Your task to perform on an android device: check battery use Image 0: 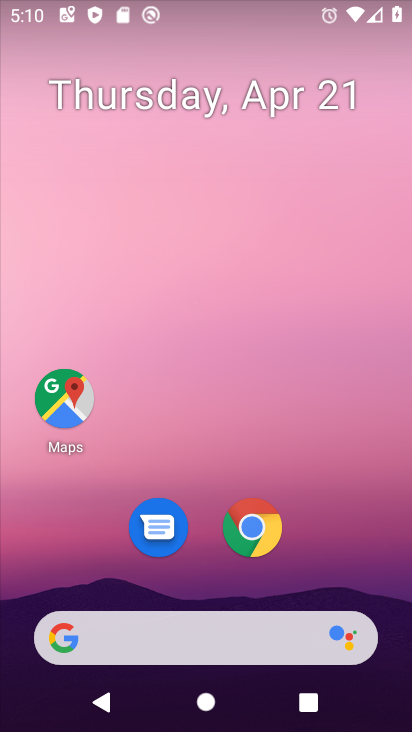
Step 0: click (380, 582)
Your task to perform on an android device: check battery use Image 1: 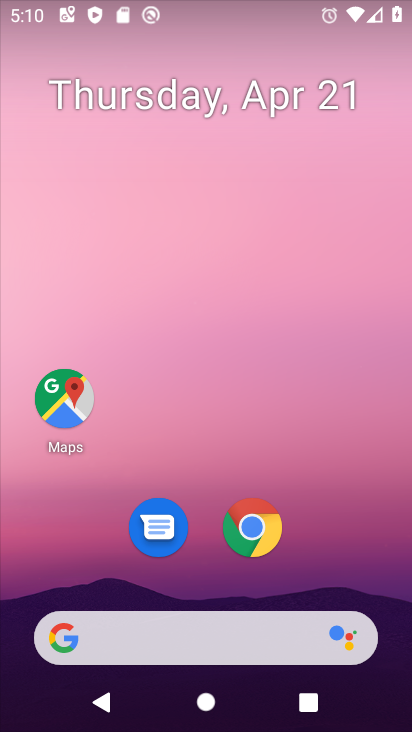
Step 1: click (342, 167)
Your task to perform on an android device: check battery use Image 2: 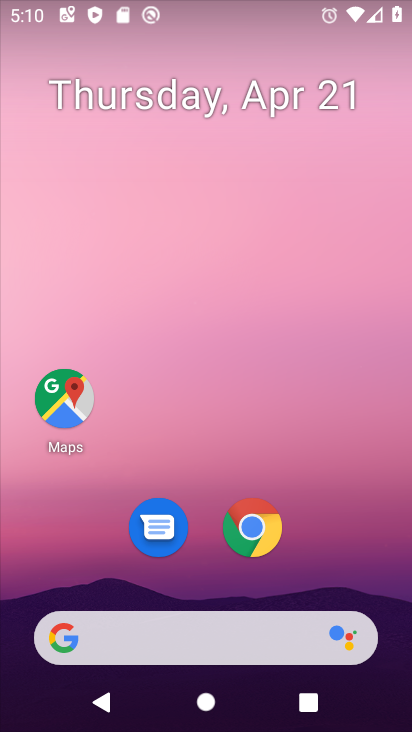
Step 2: drag from (382, 556) to (330, 133)
Your task to perform on an android device: check battery use Image 3: 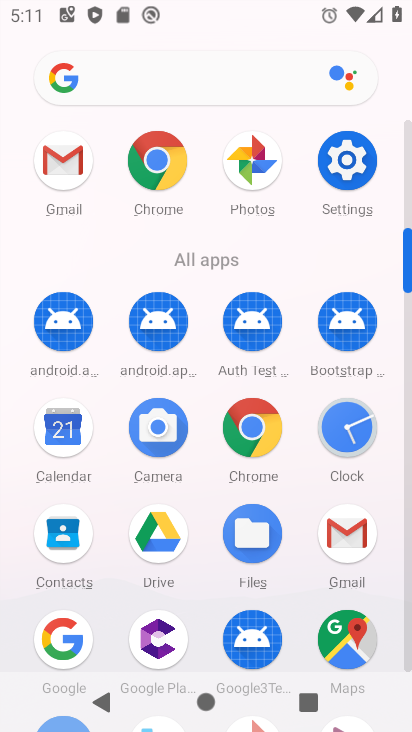
Step 3: click (357, 168)
Your task to perform on an android device: check battery use Image 4: 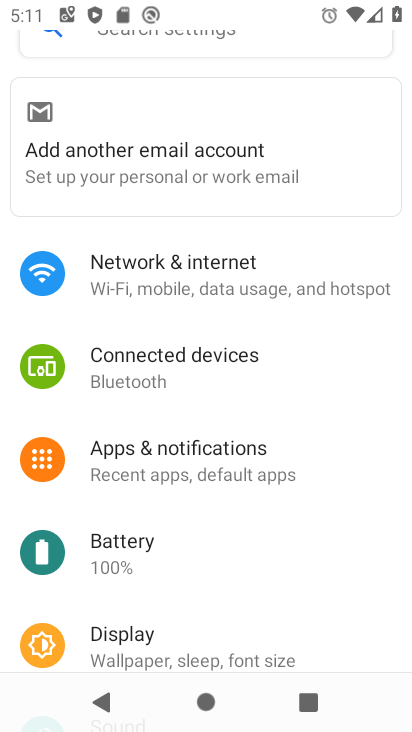
Step 4: click (346, 340)
Your task to perform on an android device: check battery use Image 5: 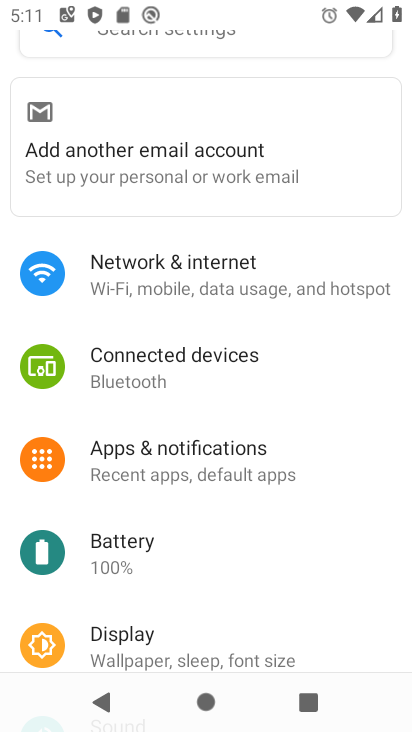
Step 5: drag from (371, 628) to (314, 204)
Your task to perform on an android device: check battery use Image 6: 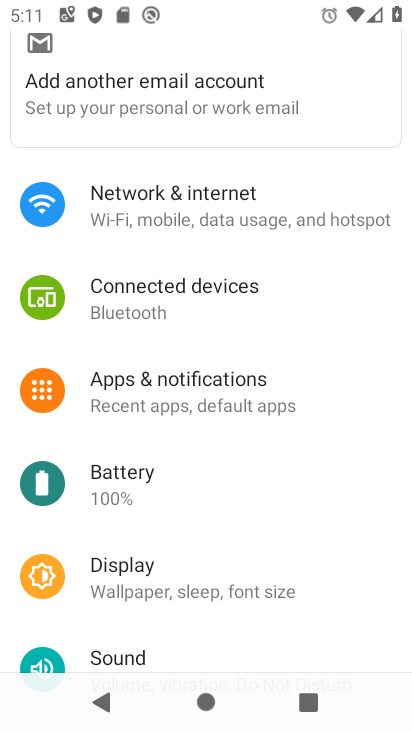
Step 6: drag from (359, 629) to (355, 258)
Your task to perform on an android device: check battery use Image 7: 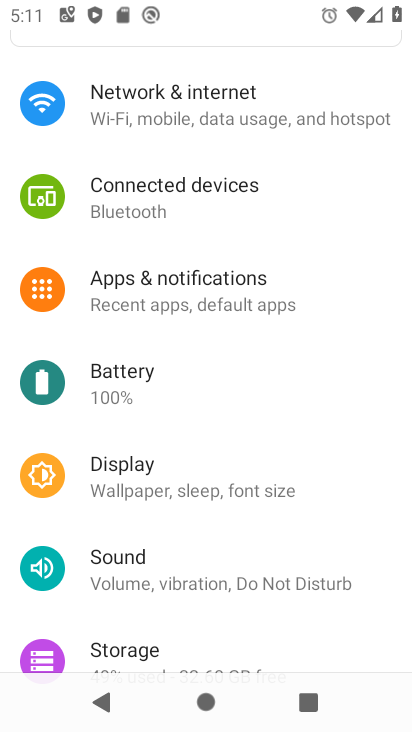
Step 7: click (96, 372)
Your task to perform on an android device: check battery use Image 8: 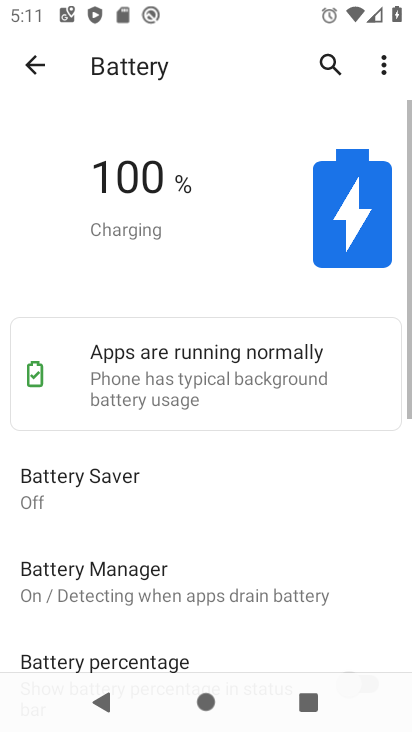
Step 8: click (380, 57)
Your task to perform on an android device: check battery use Image 9: 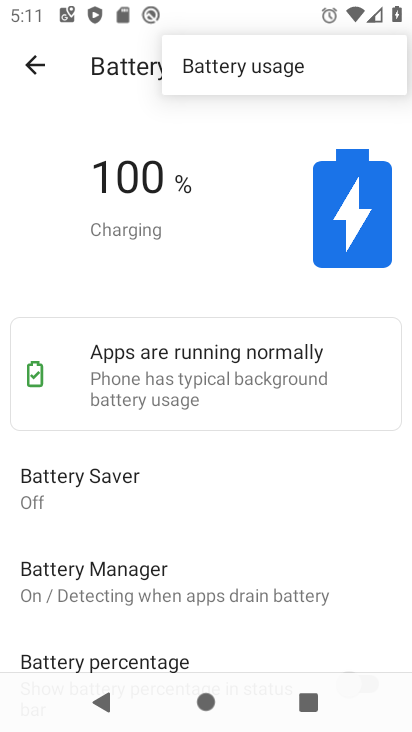
Step 9: click (248, 73)
Your task to perform on an android device: check battery use Image 10: 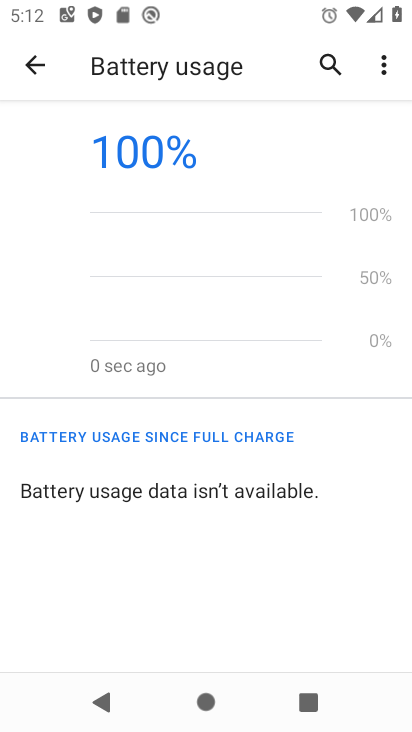
Step 10: task complete